Your task to perform on an android device: toggle improve location accuracy Image 0: 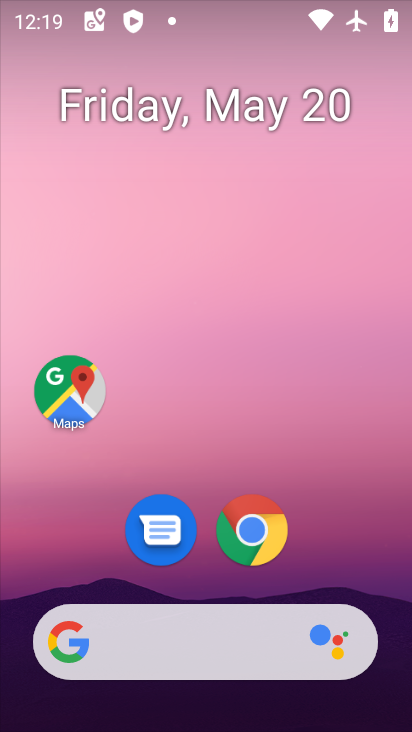
Step 0: drag from (229, 639) to (232, 0)
Your task to perform on an android device: toggle improve location accuracy Image 1: 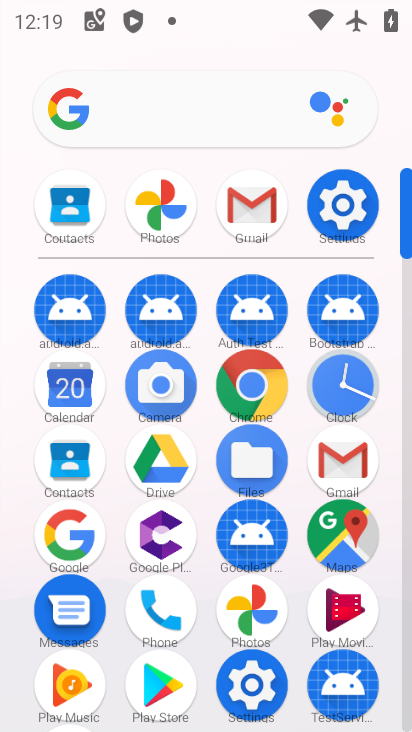
Step 1: click (332, 197)
Your task to perform on an android device: toggle improve location accuracy Image 2: 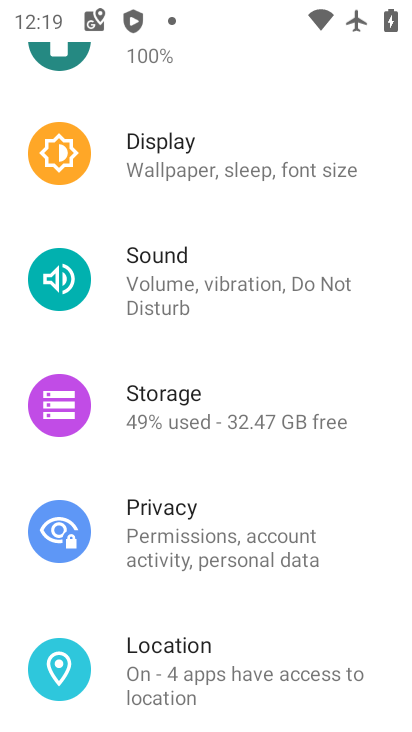
Step 2: click (228, 681)
Your task to perform on an android device: toggle improve location accuracy Image 3: 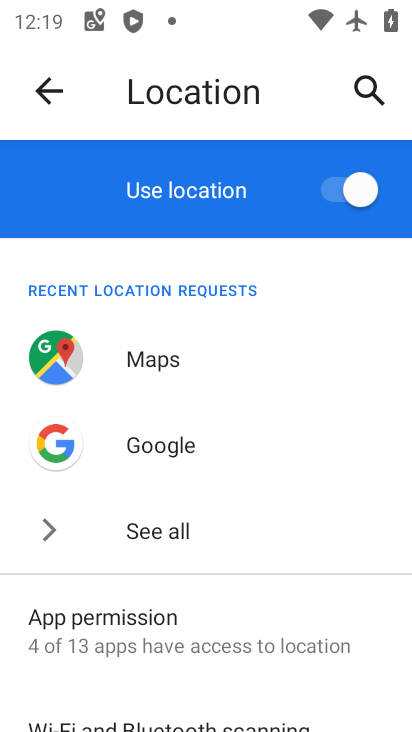
Step 3: drag from (268, 660) to (234, 225)
Your task to perform on an android device: toggle improve location accuracy Image 4: 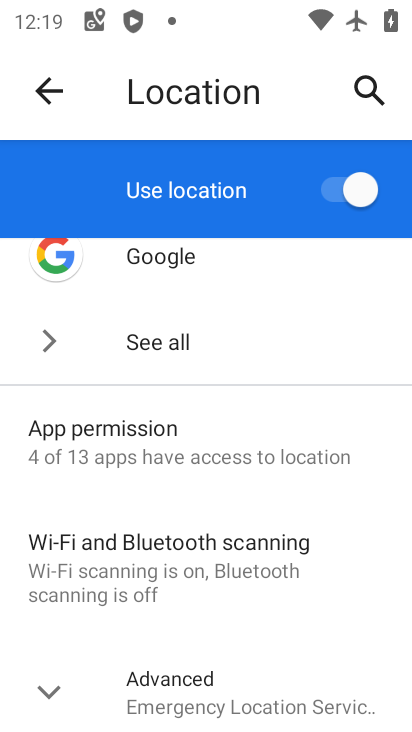
Step 4: click (234, 709)
Your task to perform on an android device: toggle improve location accuracy Image 5: 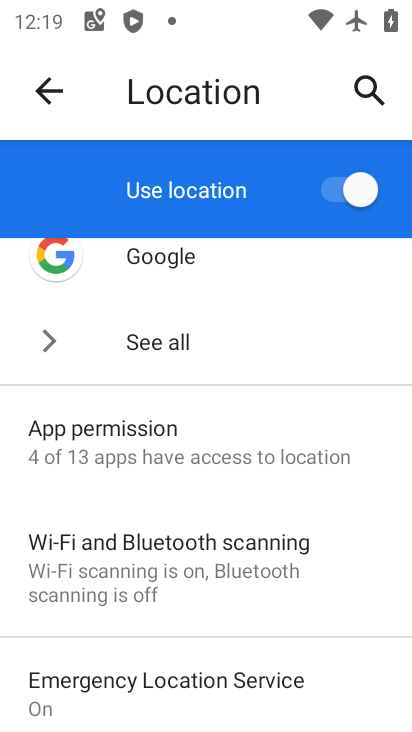
Step 5: drag from (234, 689) to (251, 161)
Your task to perform on an android device: toggle improve location accuracy Image 6: 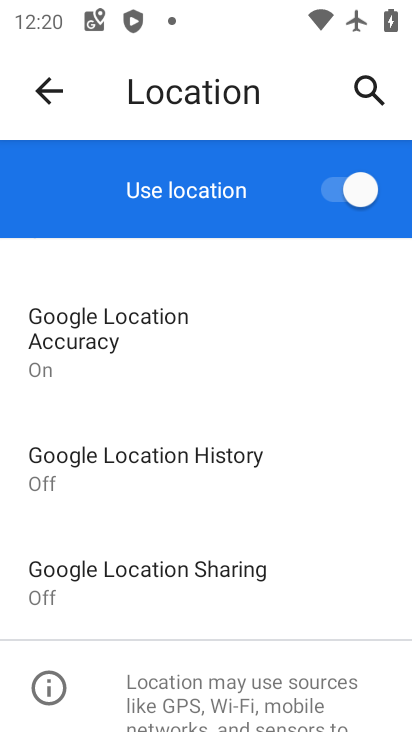
Step 6: click (151, 321)
Your task to perform on an android device: toggle improve location accuracy Image 7: 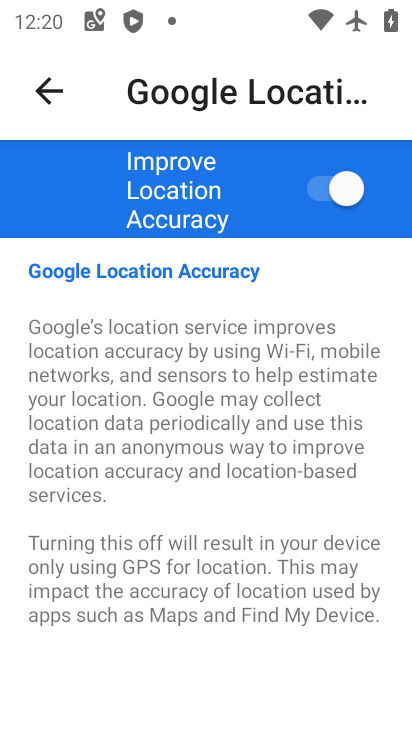
Step 7: click (340, 192)
Your task to perform on an android device: toggle improve location accuracy Image 8: 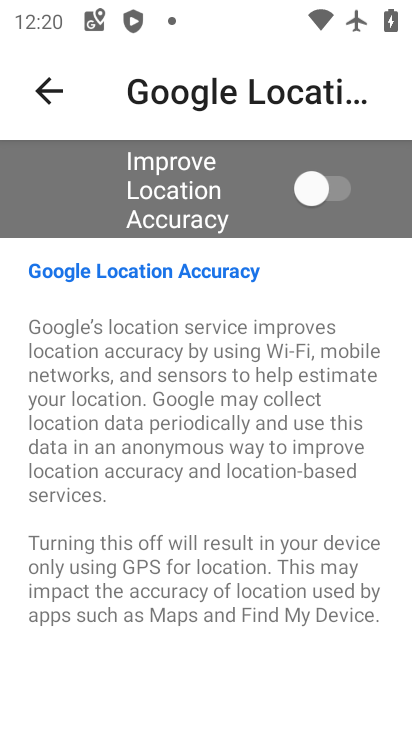
Step 8: task complete